Your task to perform on an android device: change alarm snooze length Image 0: 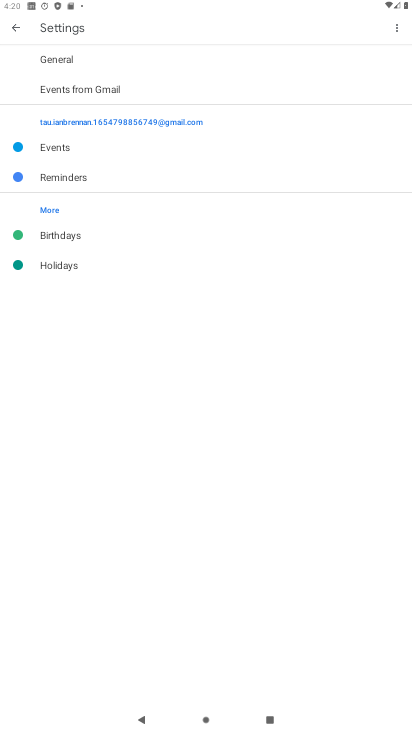
Step 0: press home button
Your task to perform on an android device: change alarm snooze length Image 1: 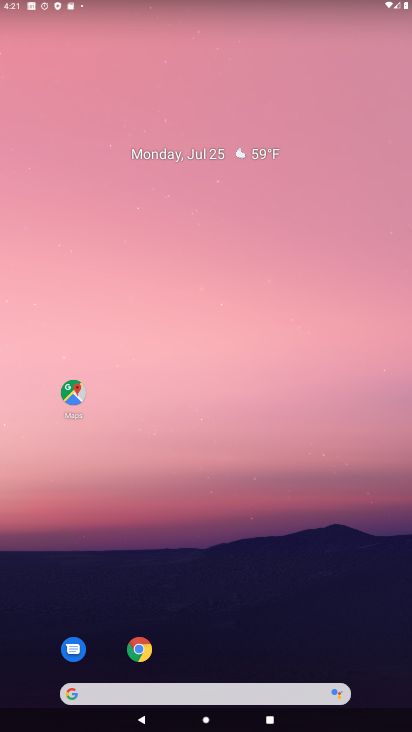
Step 1: drag from (290, 643) to (235, 214)
Your task to perform on an android device: change alarm snooze length Image 2: 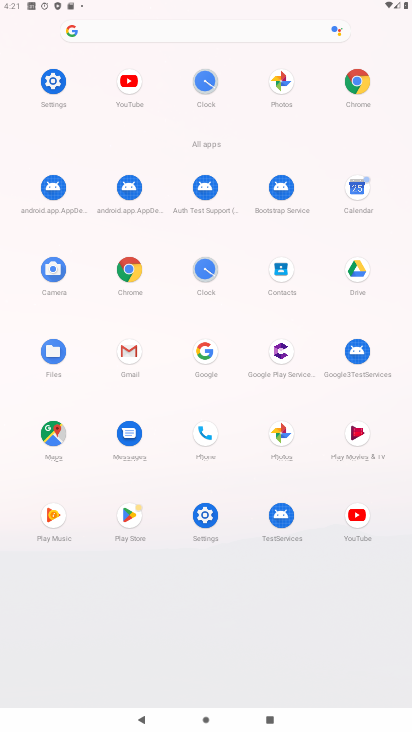
Step 2: click (207, 93)
Your task to perform on an android device: change alarm snooze length Image 3: 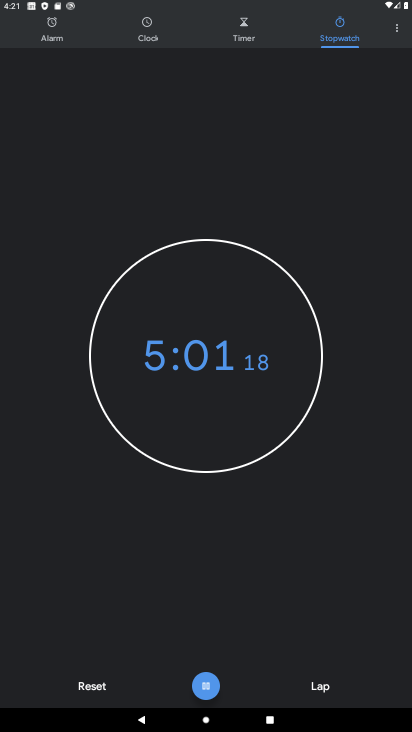
Step 3: click (398, 38)
Your task to perform on an android device: change alarm snooze length Image 4: 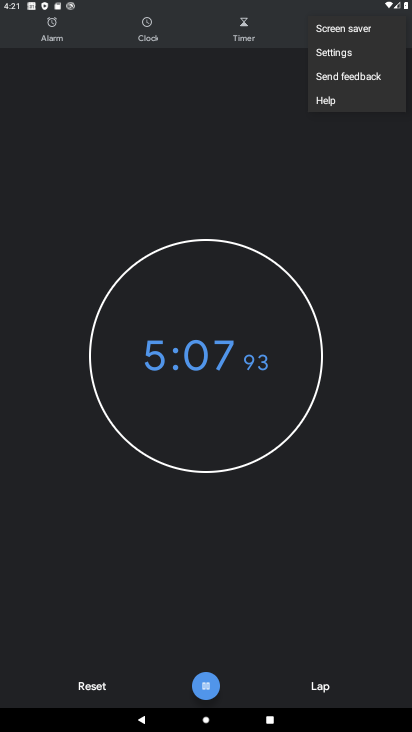
Step 4: click (349, 63)
Your task to perform on an android device: change alarm snooze length Image 5: 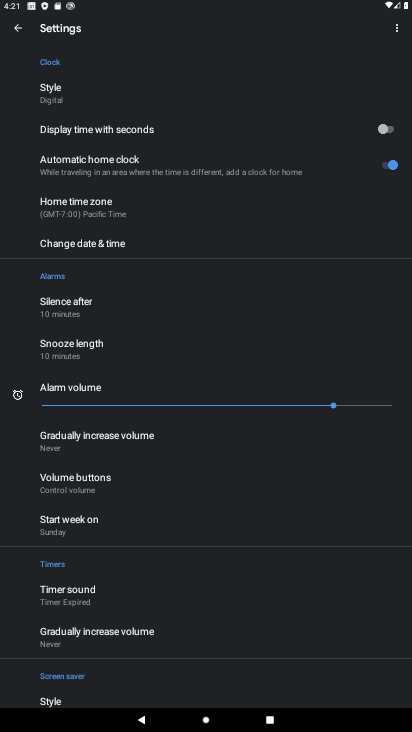
Step 5: click (143, 345)
Your task to perform on an android device: change alarm snooze length Image 6: 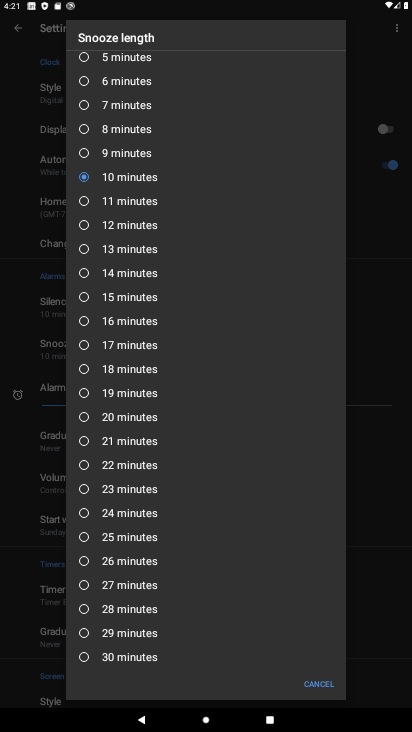
Step 6: click (155, 441)
Your task to perform on an android device: change alarm snooze length Image 7: 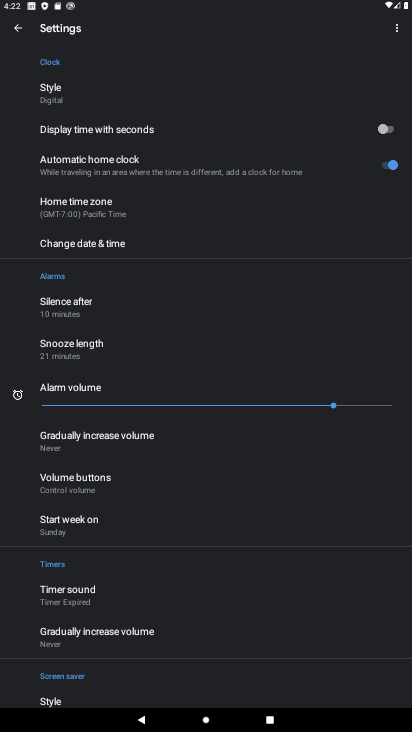
Step 7: task complete